Your task to perform on an android device: Open Google Maps and go to "Timeline" Image 0: 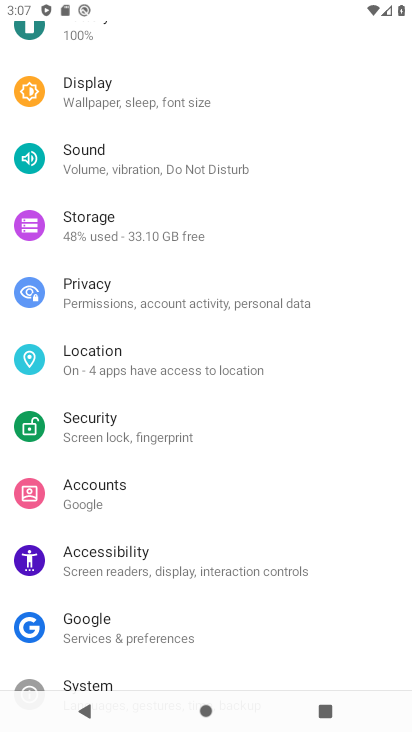
Step 0: press home button
Your task to perform on an android device: Open Google Maps and go to "Timeline" Image 1: 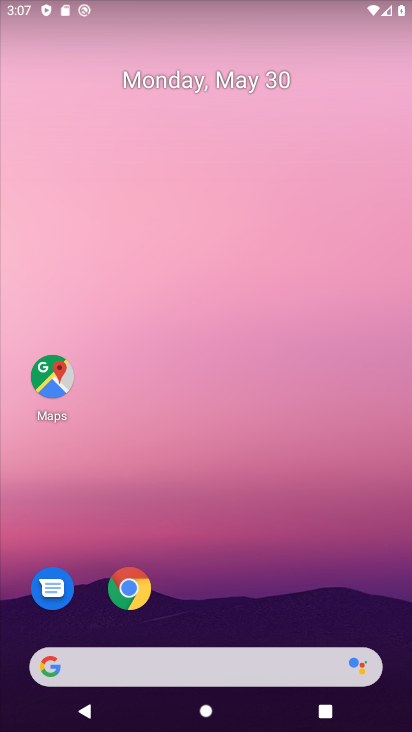
Step 1: click (52, 374)
Your task to perform on an android device: Open Google Maps and go to "Timeline" Image 2: 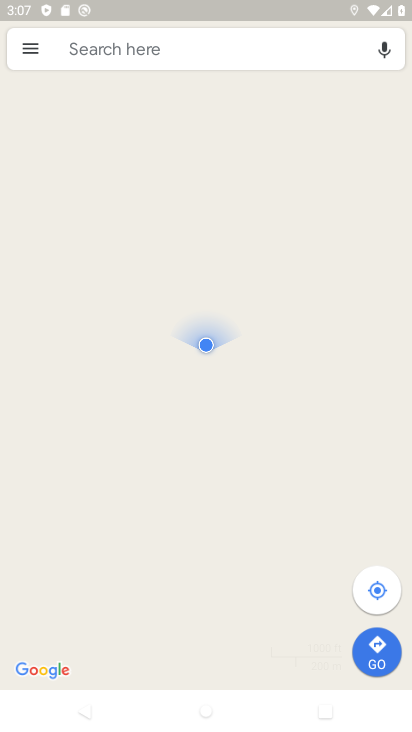
Step 2: click (29, 46)
Your task to perform on an android device: Open Google Maps and go to "Timeline" Image 3: 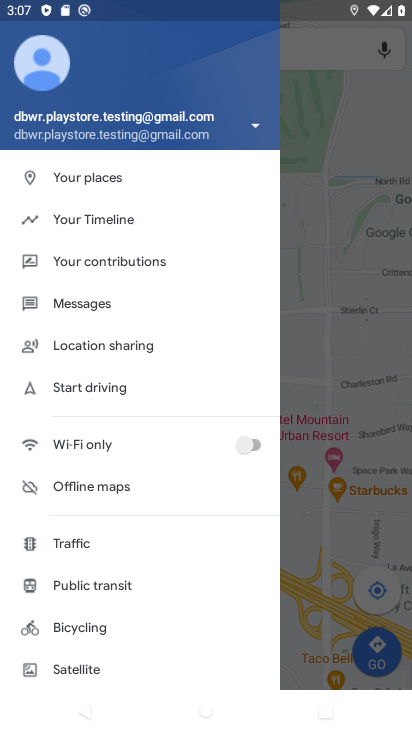
Step 3: click (92, 209)
Your task to perform on an android device: Open Google Maps and go to "Timeline" Image 4: 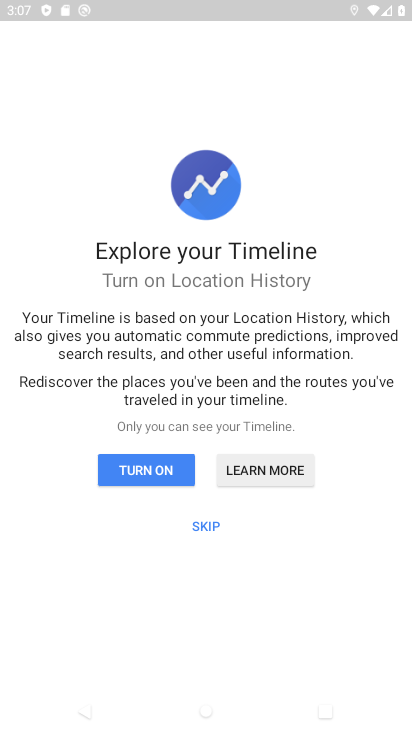
Step 4: click (200, 518)
Your task to perform on an android device: Open Google Maps and go to "Timeline" Image 5: 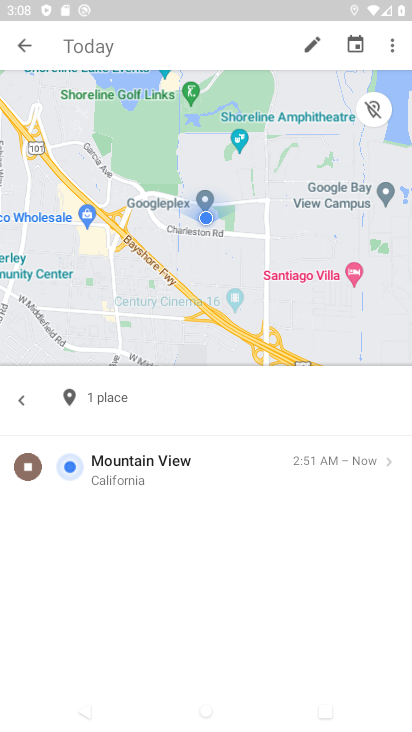
Step 5: task complete